Your task to perform on an android device: Open maps Image 0: 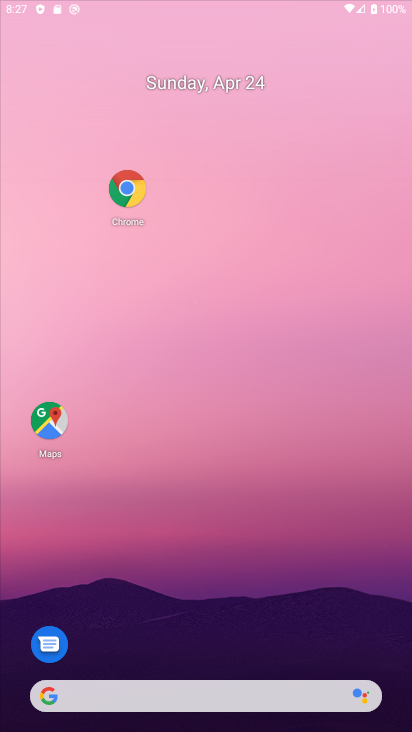
Step 0: drag from (250, 650) to (342, 94)
Your task to perform on an android device: Open maps Image 1: 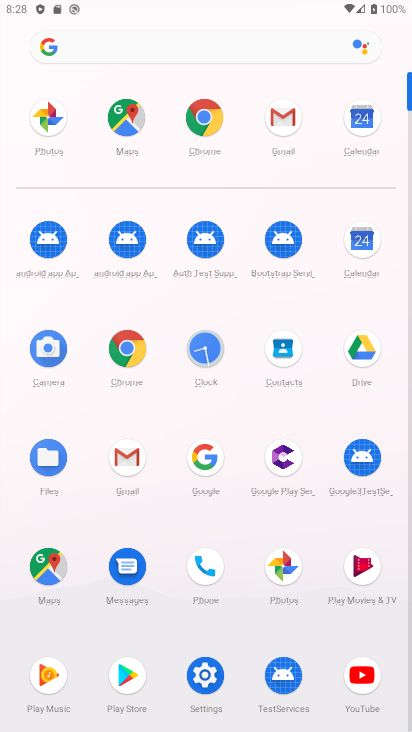
Step 1: click (52, 563)
Your task to perform on an android device: Open maps Image 2: 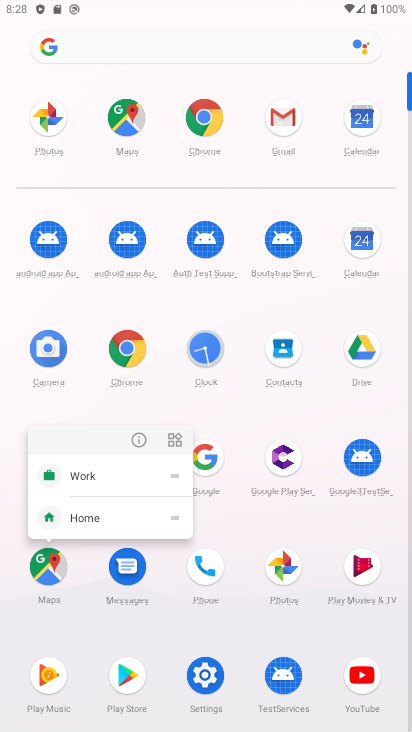
Step 2: click (138, 442)
Your task to perform on an android device: Open maps Image 3: 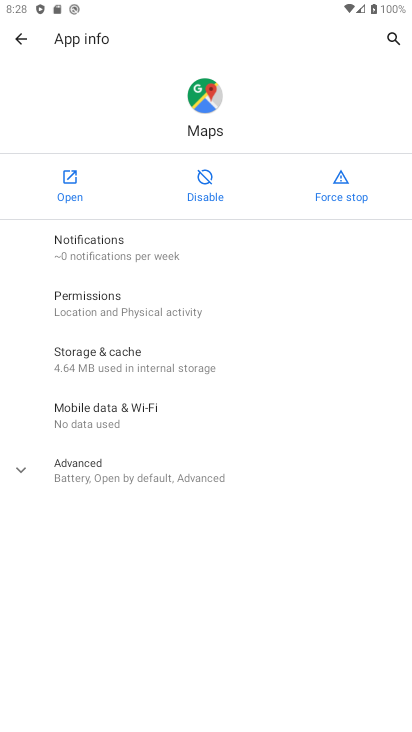
Step 3: click (68, 177)
Your task to perform on an android device: Open maps Image 4: 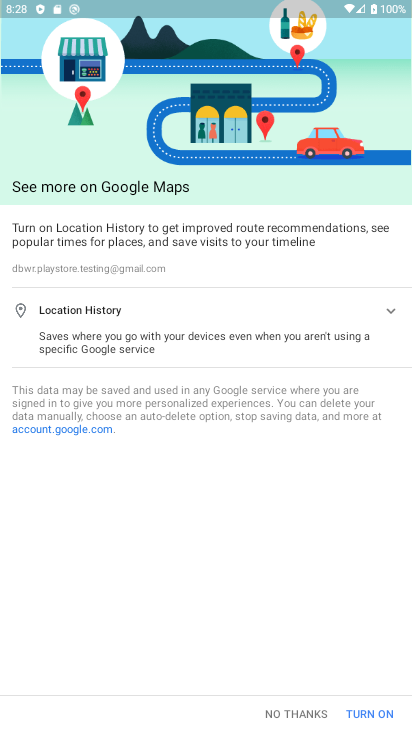
Step 4: drag from (209, 647) to (261, 363)
Your task to perform on an android device: Open maps Image 5: 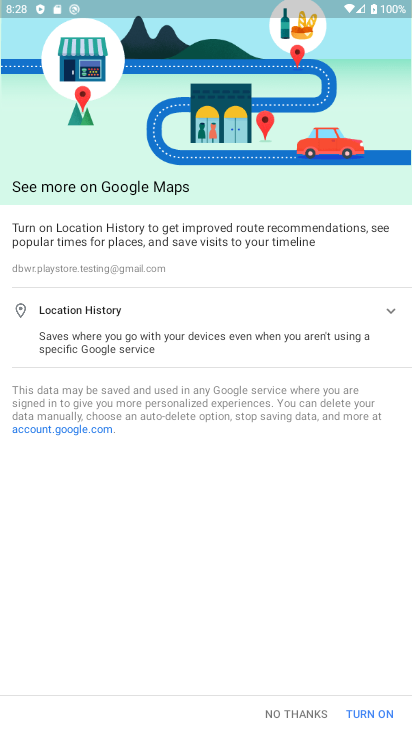
Step 5: click (300, 712)
Your task to perform on an android device: Open maps Image 6: 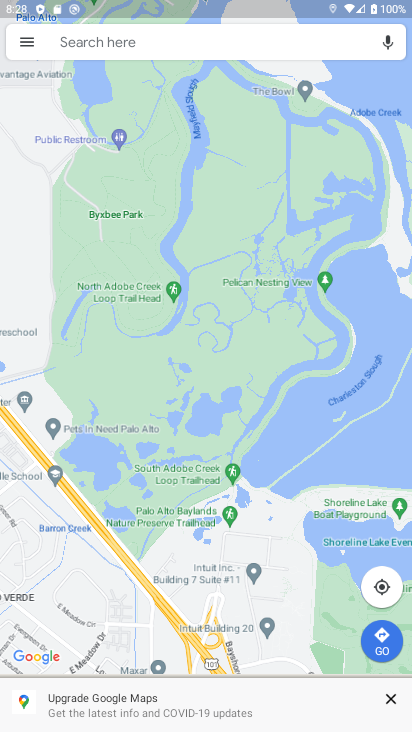
Step 6: task complete